Your task to perform on an android device: Open Reddit.com Image 0: 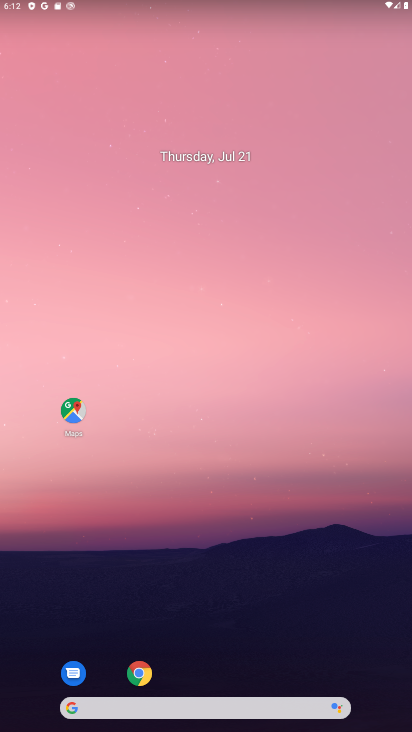
Step 0: click (134, 674)
Your task to perform on an android device: Open Reddit.com Image 1: 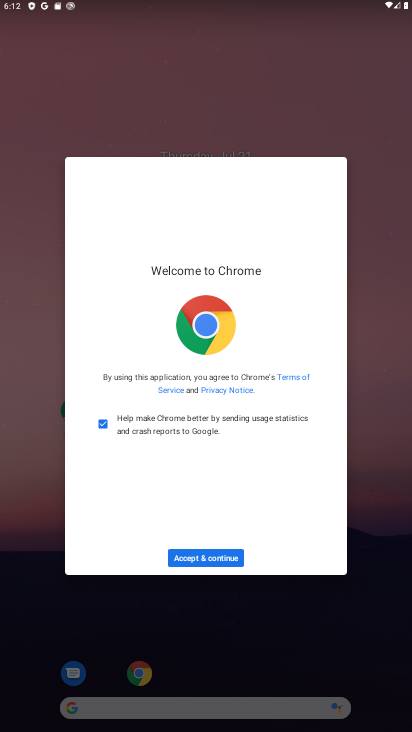
Step 1: click (193, 553)
Your task to perform on an android device: Open Reddit.com Image 2: 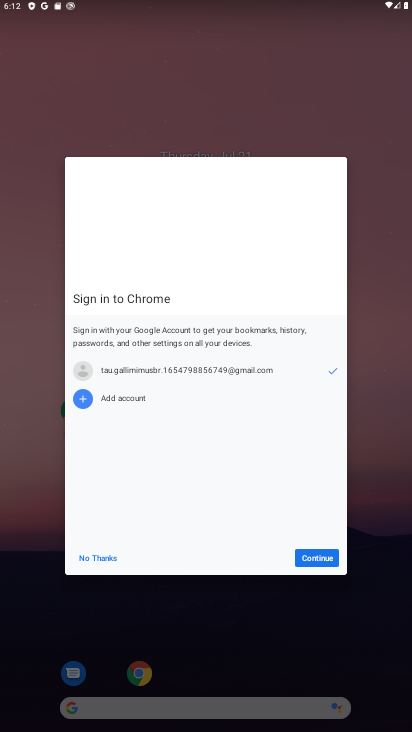
Step 2: click (319, 553)
Your task to perform on an android device: Open Reddit.com Image 3: 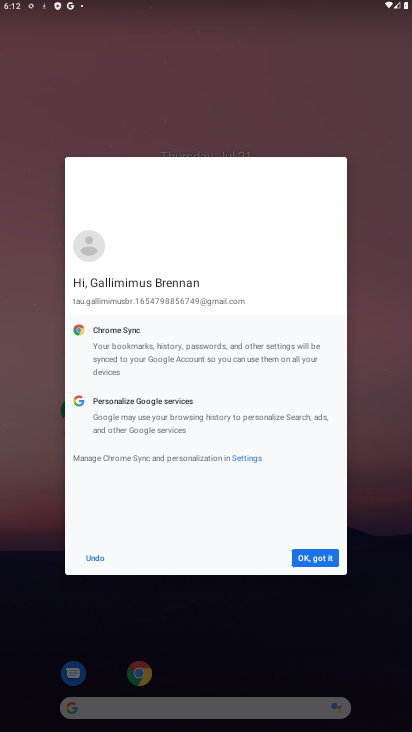
Step 3: click (319, 553)
Your task to perform on an android device: Open Reddit.com Image 4: 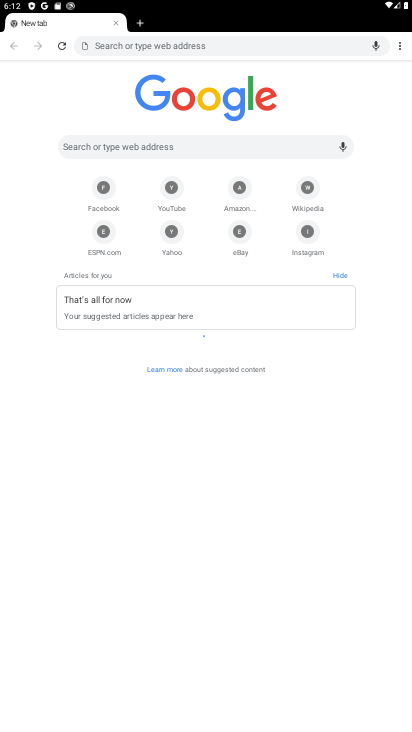
Step 4: click (150, 49)
Your task to perform on an android device: Open Reddit.com Image 5: 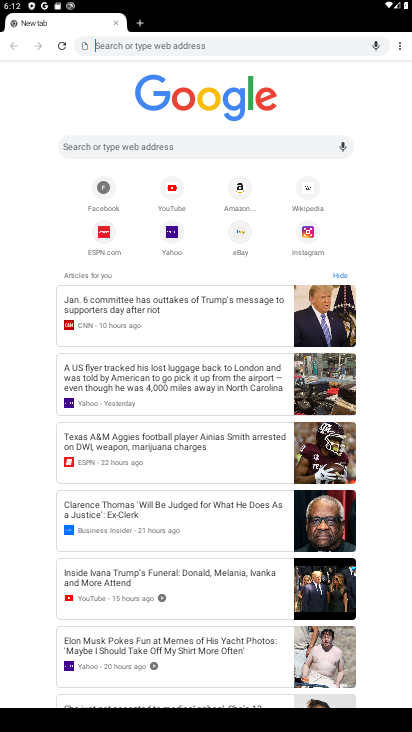
Step 5: type "www.reddit.com"
Your task to perform on an android device: Open Reddit.com Image 6: 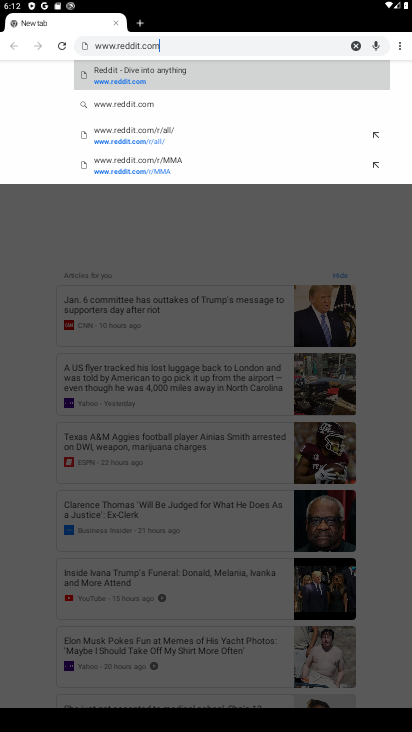
Step 6: click (110, 79)
Your task to perform on an android device: Open Reddit.com Image 7: 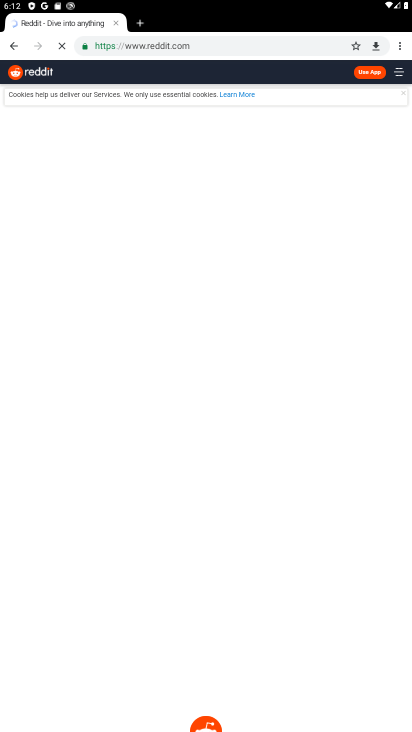
Step 7: task complete